Your task to perform on an android device: Open the web browser Image 0: 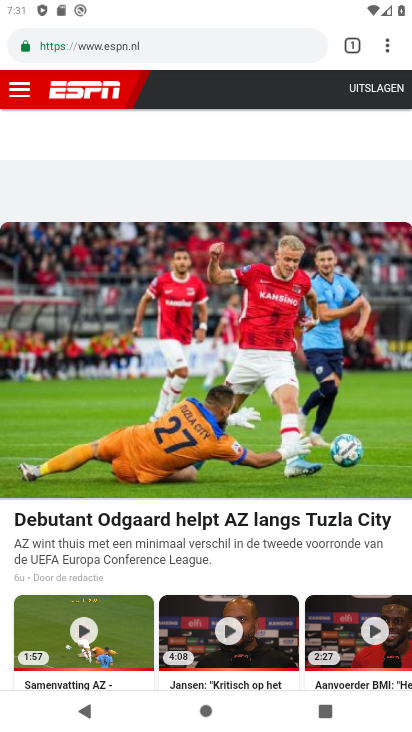
Step 0: task complete